Your task to perform on an android device: toggle data saver in the chrome app Image 0: 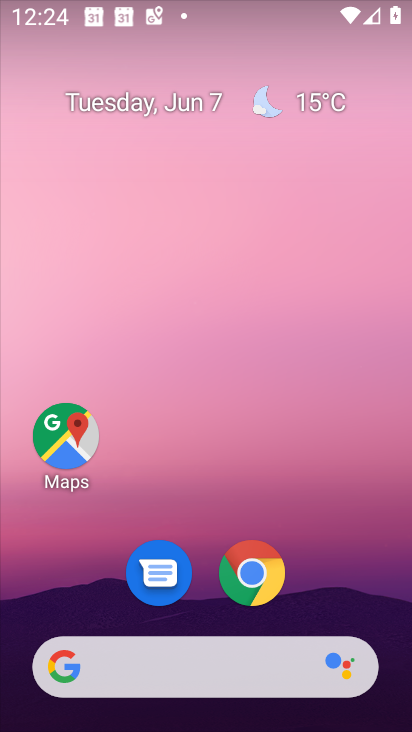
Step 0: click (258, 569)
Your task to perform on an android device: toggle data saver in the chrome app Image 1: 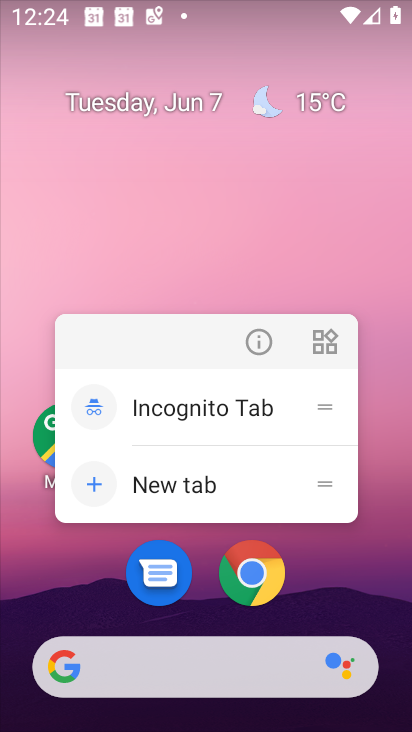
Step 1: click (245, 577)
Your task to perform on an android device: toggle data saver in the chrome app Image 2: 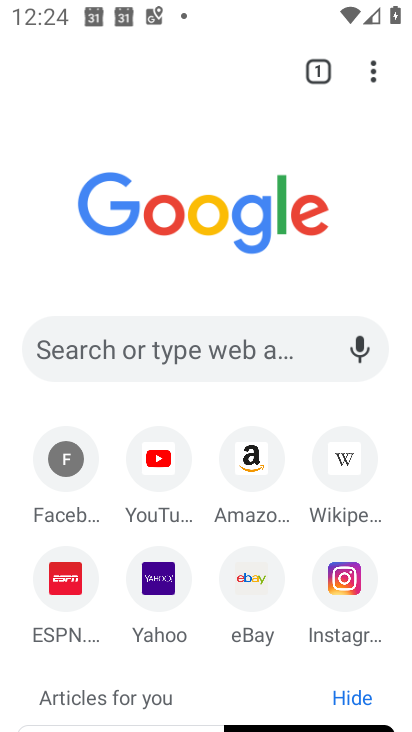
Step 2: drag from (368, 68) to (161, 593)
Your task to perform on an android device: toggle data saver in the chrome app Image 3: 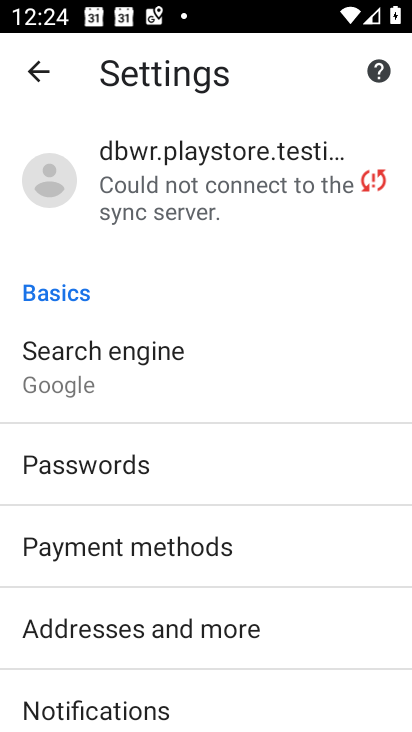
Step 3: drag from (353, 666) to (355, 40)
Your task to perform on an android device: toggle data saver in the chrome app Image 4: 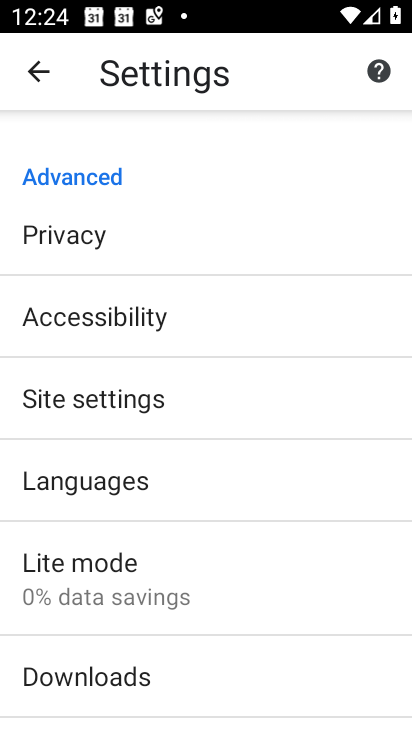
Step 4: click (102, 579)
Your task to perform on an android device: toggle data saver in the chrome app Image 5: 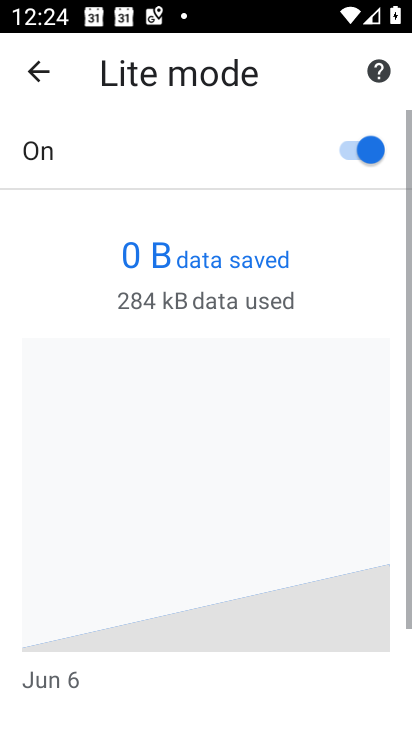
Step 5: click (353, 135)
Your task to perform on an android device: toggle data saver in the chrome app Image 6: 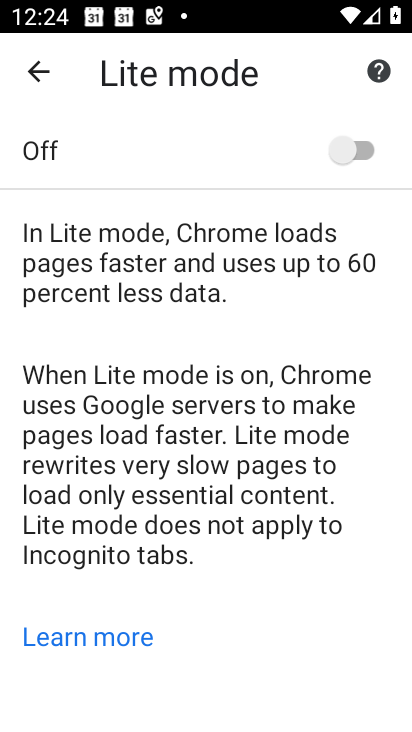
Step 6: task complete